Your task to perform on an android device: open app "YouTube Kids" (install if not already installed) Image 0: 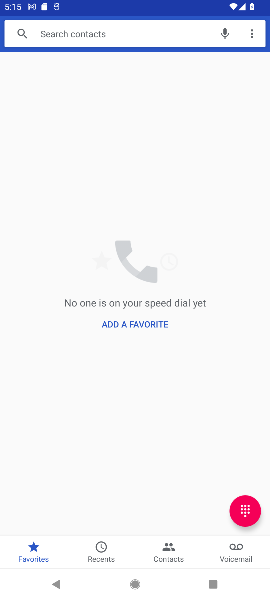
Step 0: press home button
Your task to perform on an android device: open app "YouTube Kids" (install if not already installed) Image 1: 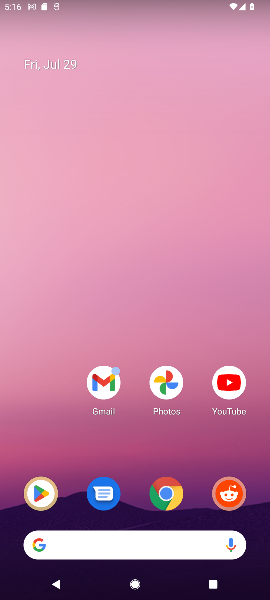
Step 1: click (41, 490)
Your task to perform on an android device: open app "YouTube Kids" (install if not already installed) Image 2: 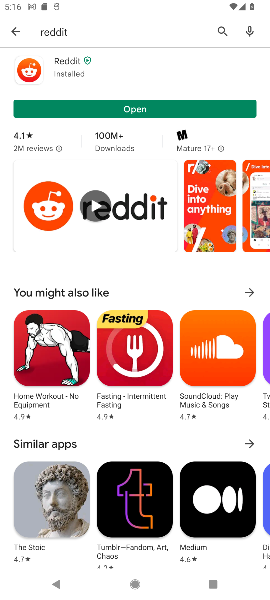
Step 2: click (223, 31)
Your task to perform on an android device: open app "YouTube Kids" (install if not already installed) Image 3: 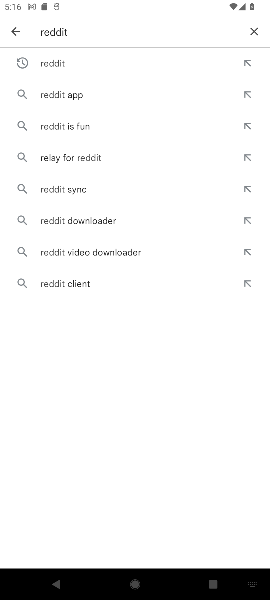
Step 3: click (253, 31)
Your task to perform on an android device: open app "YouTube Kids" (install if not already installed) Image 4: 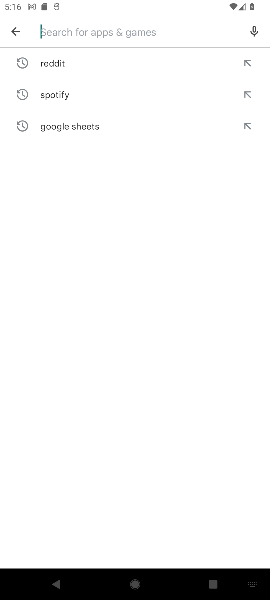
Step 4: type "YouTube Kids"
Your task to perform on an android device: open app "YouTube Kids" (install if not already installed) Image 5: 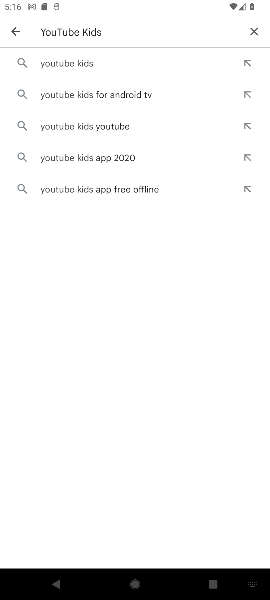
Step 5: click (51, 60)
Your task to perform on an android device: open app "YouTube Kids" (install if not already installed) Image 6: 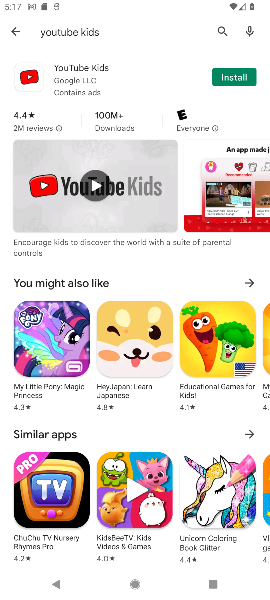
Step 6: click (230, 79)
Your task to perform on an android device: open app "YouTube Kids" (install if not already installed) Image 7: 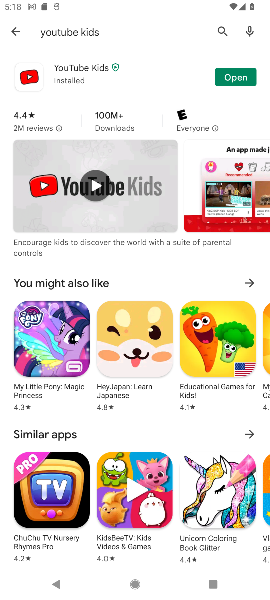
Step 7: task complete